Your task to perform on an android device: Empty the shopping cart on newegg. Add "dell alienware" to the cart on newegg Image 0: 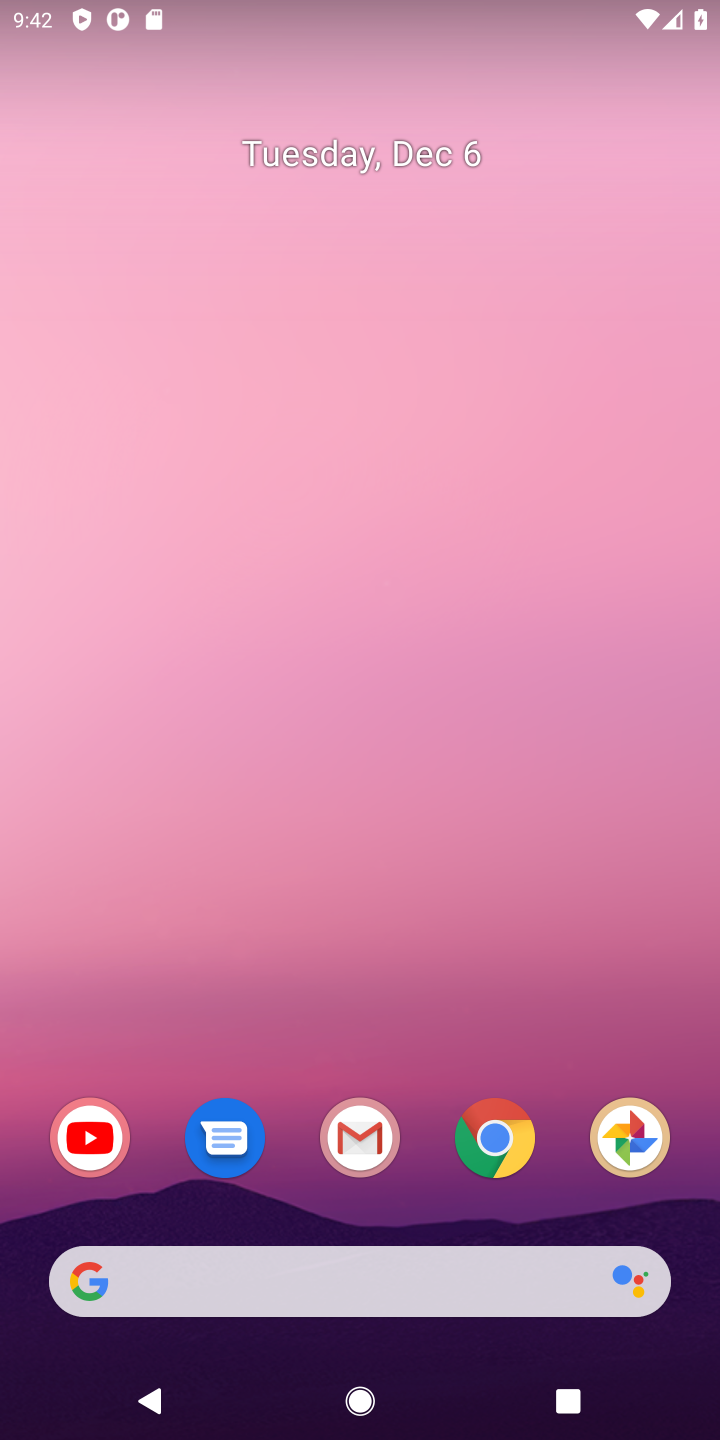
Step 0: click (493, 1133)
Your task to perform on an android device: Empty the shopping cart on newegg. Add "dell alienware" to the cart on newegg Image 1: 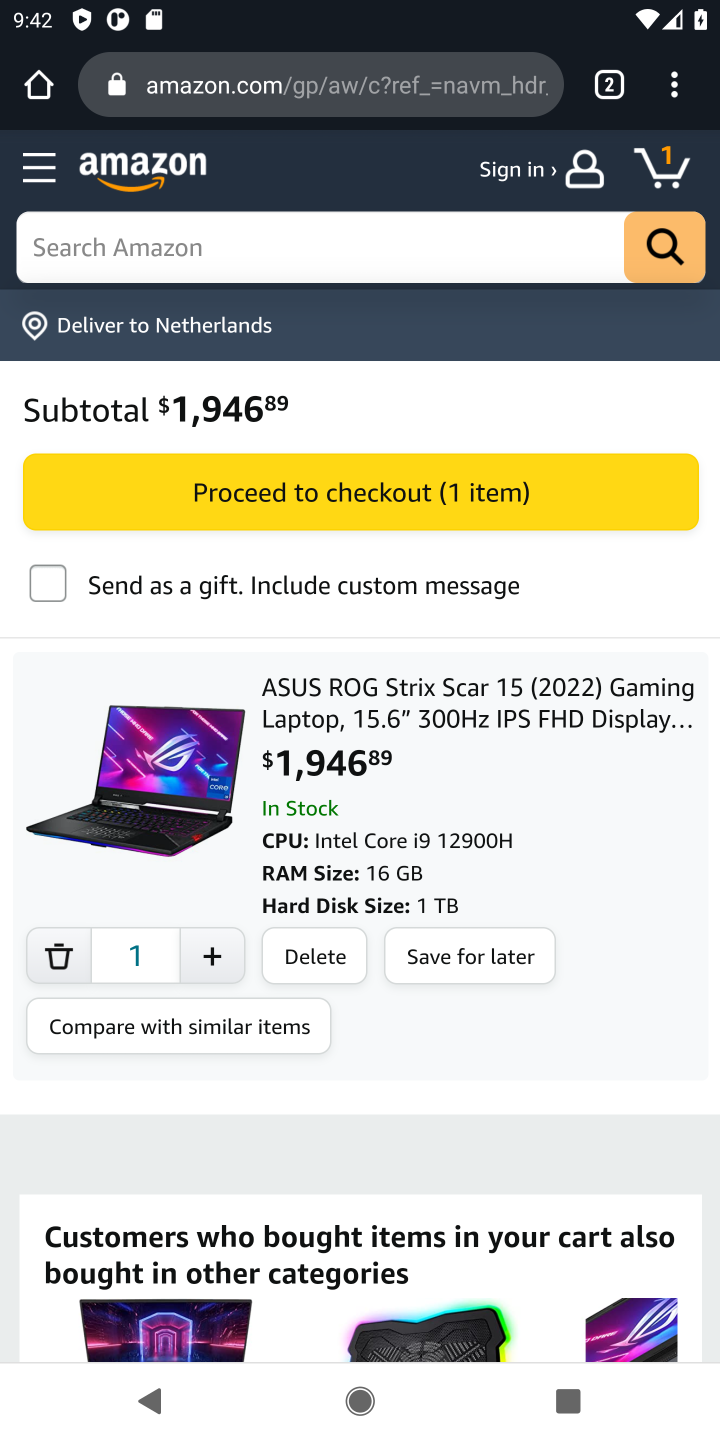
Step 1: click (239, 84)
Your task to perform on an android device: Empty the shopping cart on newegg. Add "dell alienware" to the cart on newegg Image 2: 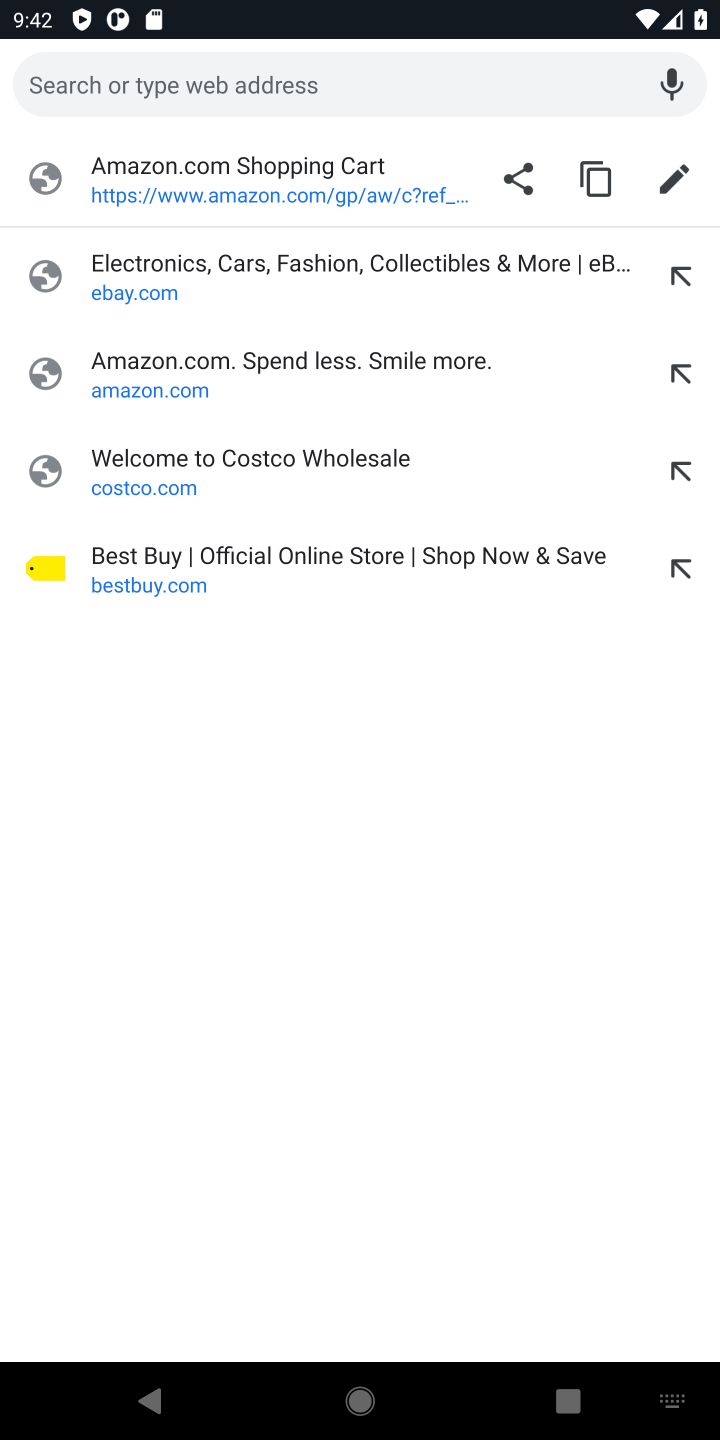
Step 2: type "newegg.com"
Your task to perform on an android device: Empty the shopping cart on newegg. Add "dell alienware" to the cart on newegg Image 3: 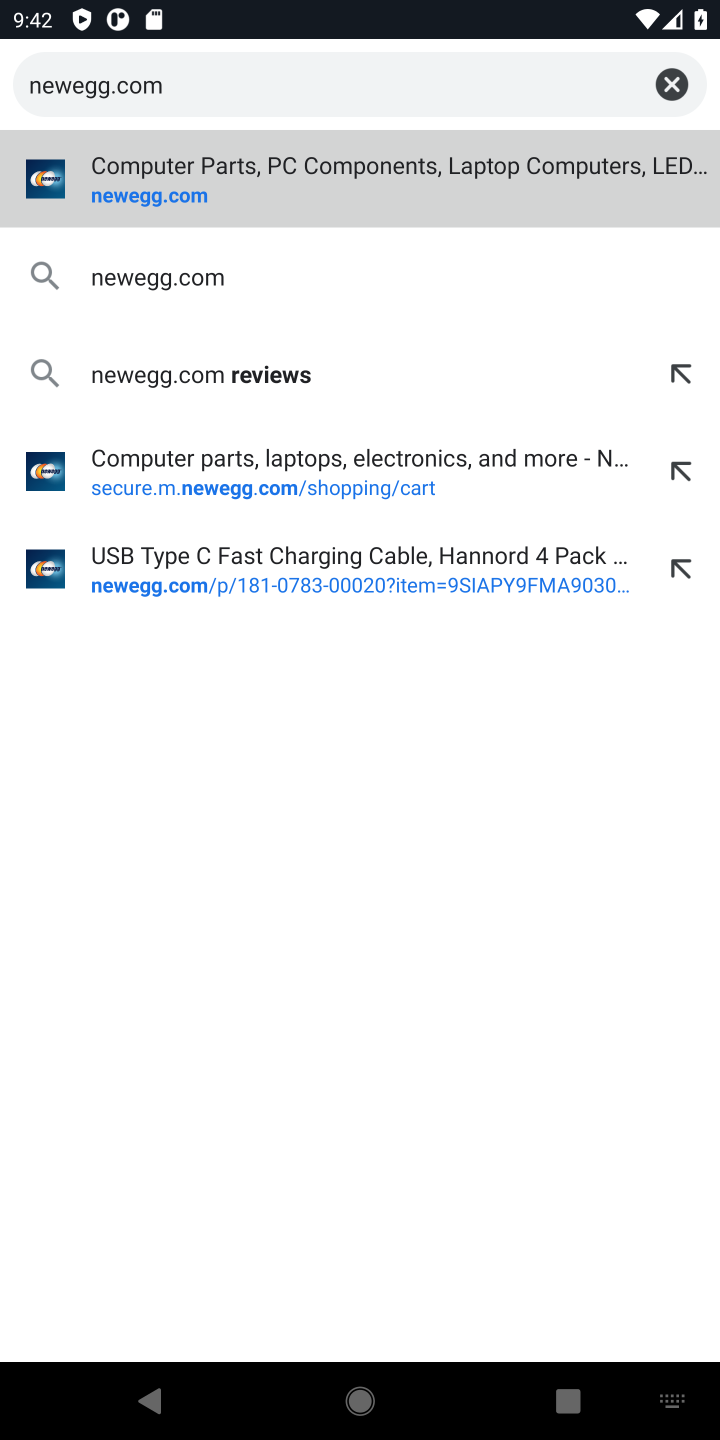
Step 3: click (115, 181)
Your task to perform on an android device: Empty the shopping cart on newegg. Add "dell alienware" to the cart on newegg Image 4: 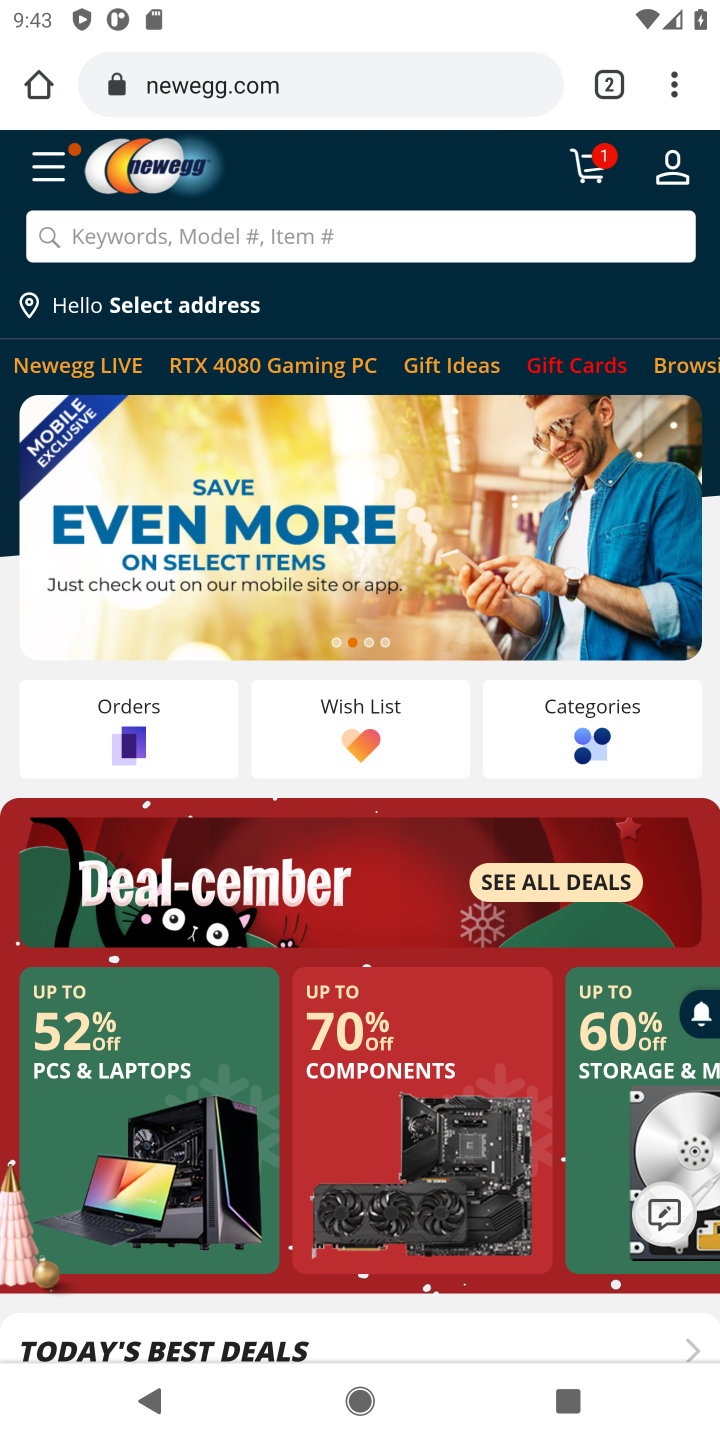
Step 4: click (592, 180)
Your task to perform on an android device: Empty the shopping cart on newegg. Add "dell alienware" to the cart on newegg Image 5: 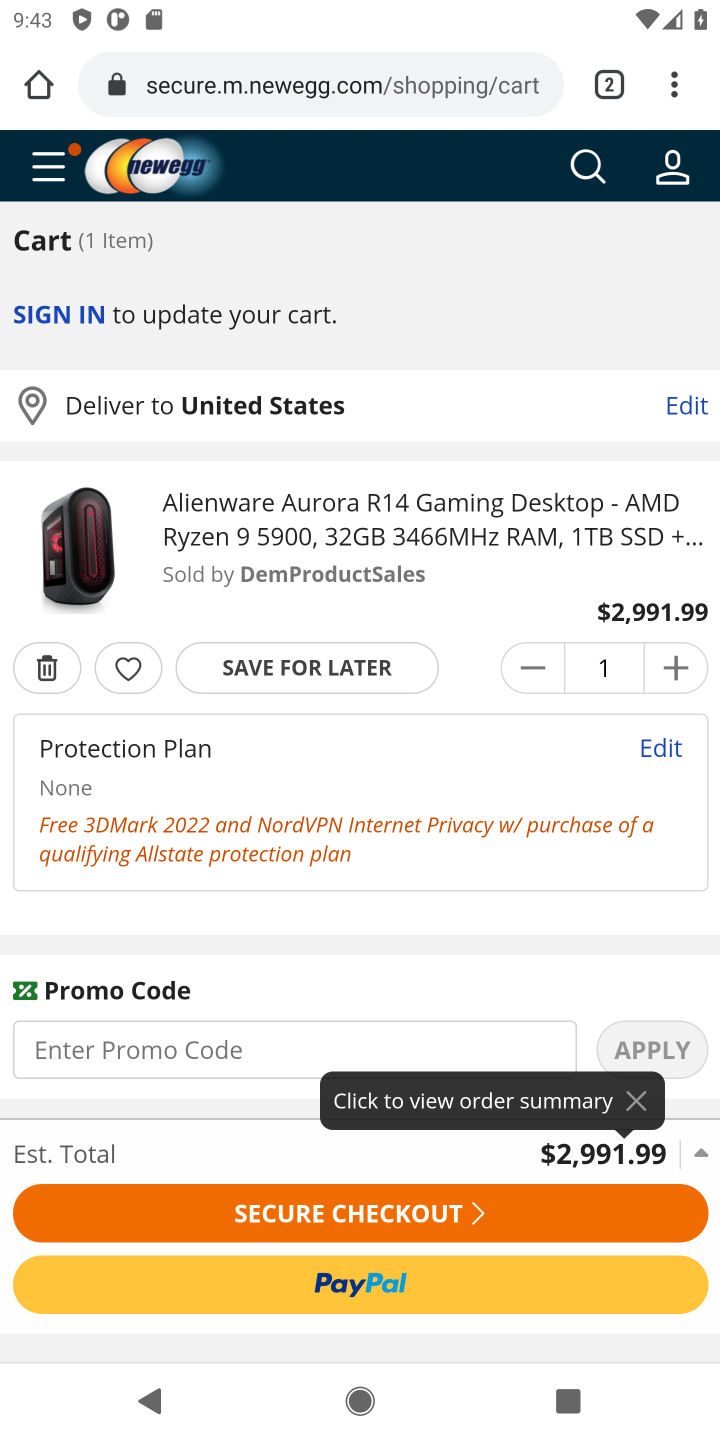
Step 5: click (39, 665)
Your task to perform on an android device: Empty the shopping cart on newegg. Add "dell alienware" to the cart on newegg Image 6: 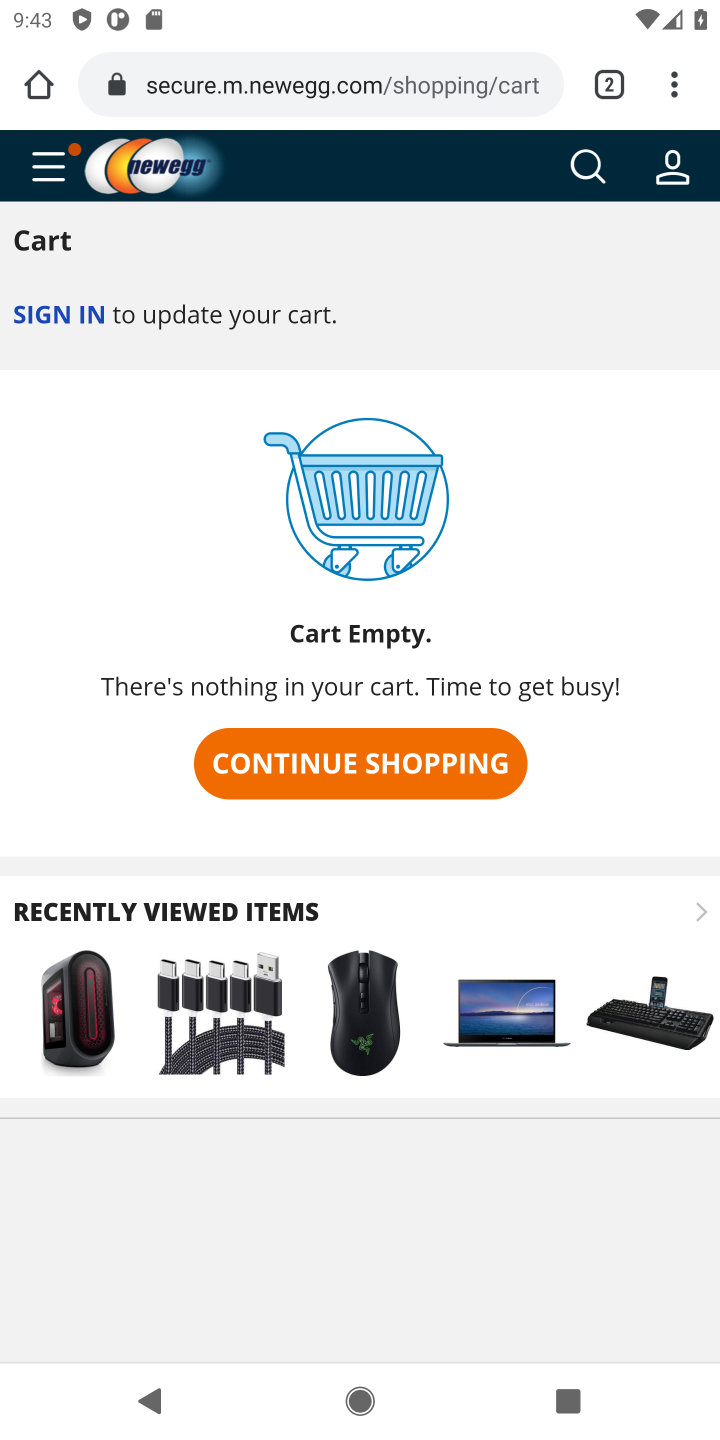
Step 6: click (582, 181)
Your task to perform on an android device: Empty the shopping cart on newegg. Add "dell alienware" to the cart on newegg Image 7: 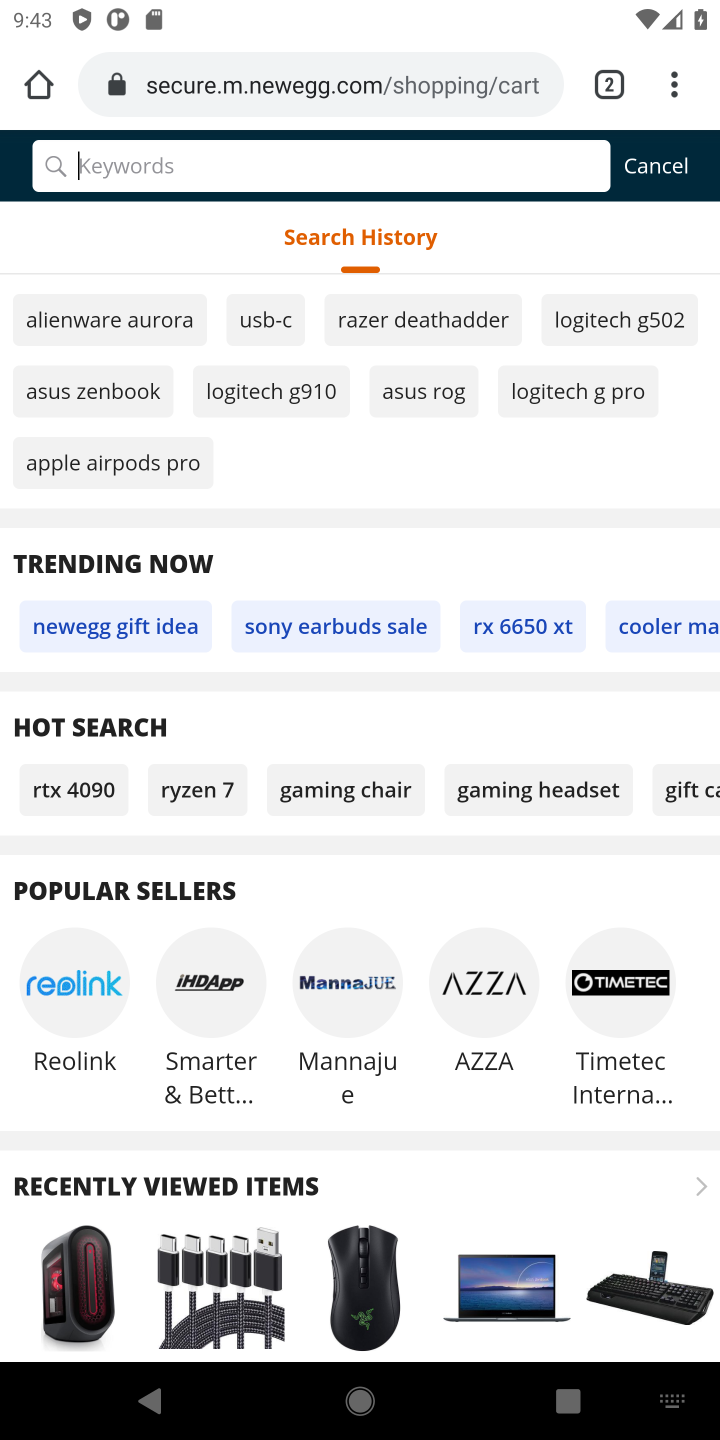
Step 7: type "dell alienware"
Your task to perform on an android device: Empty the shopping cart on newegg. Add "dell alienware" to the cart on newegg Image 8: 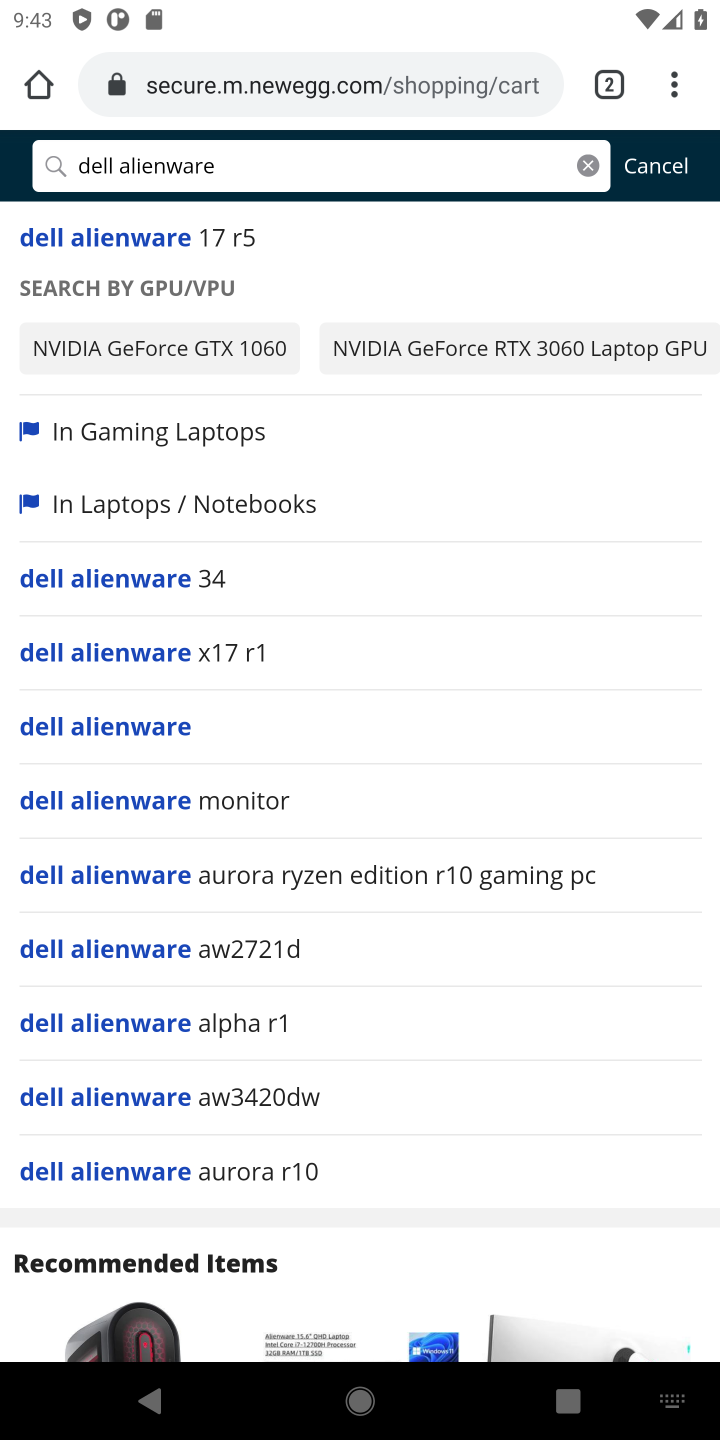
Step 8: click (146, 723)
Your task to perform on an android device: Empty the shopping cart on newegg. Add "dell alienware" to the cart on newegg Image 9: 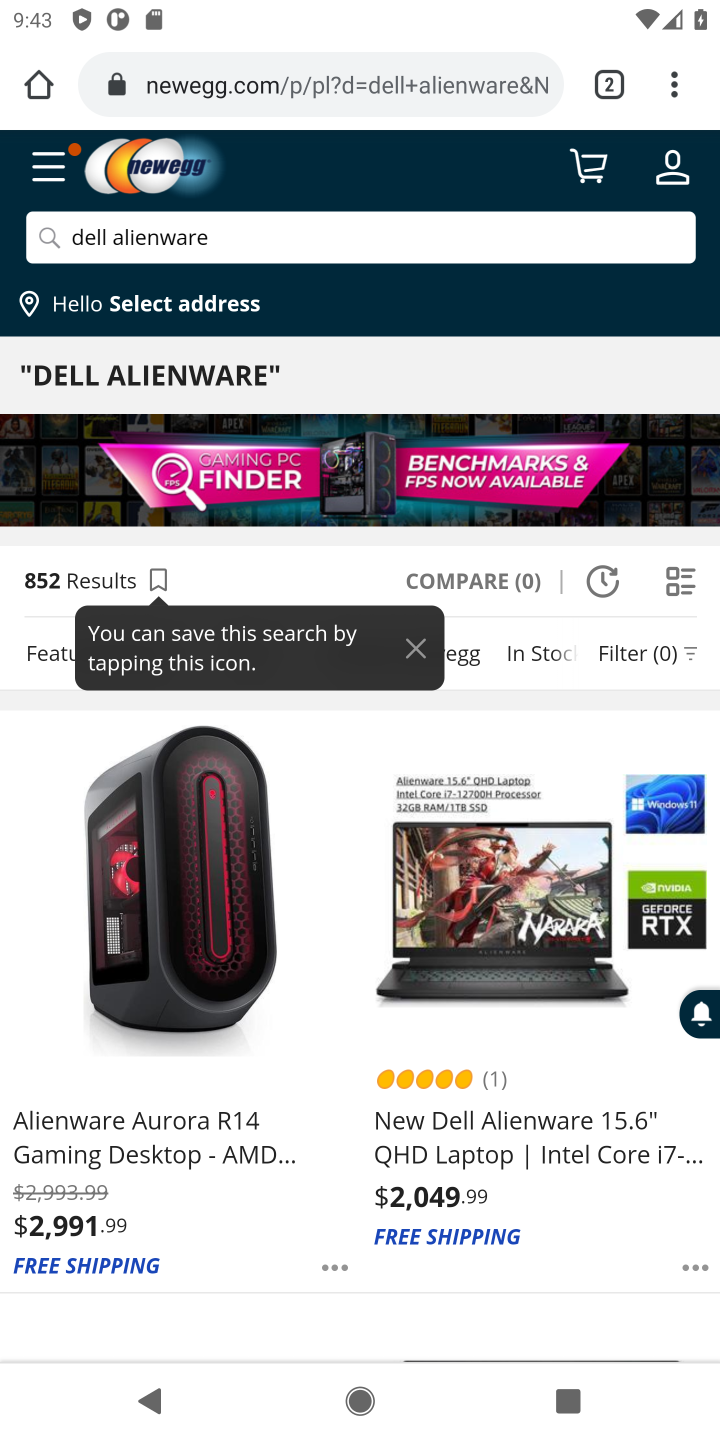
Step 9: click (516, 1123)
Your task to perform on an android device: Empty the shopping cart on newegg. Add "dell alienware" to the cart on newegg Image 10: 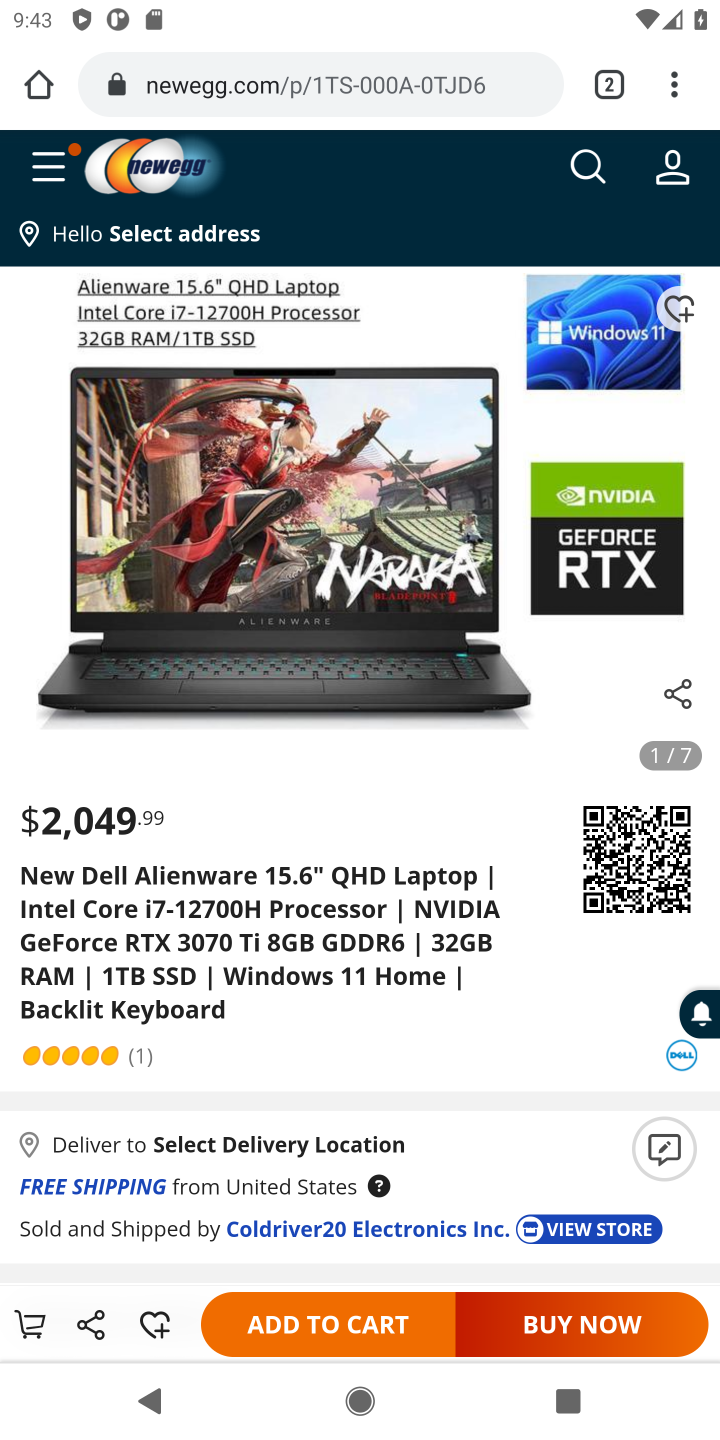
Step 10: click (293, 1337)
Your task to perform on an android device: Empty the shopping cart on newegg. Add "dell alienware" to the cart on newegg Image 11: 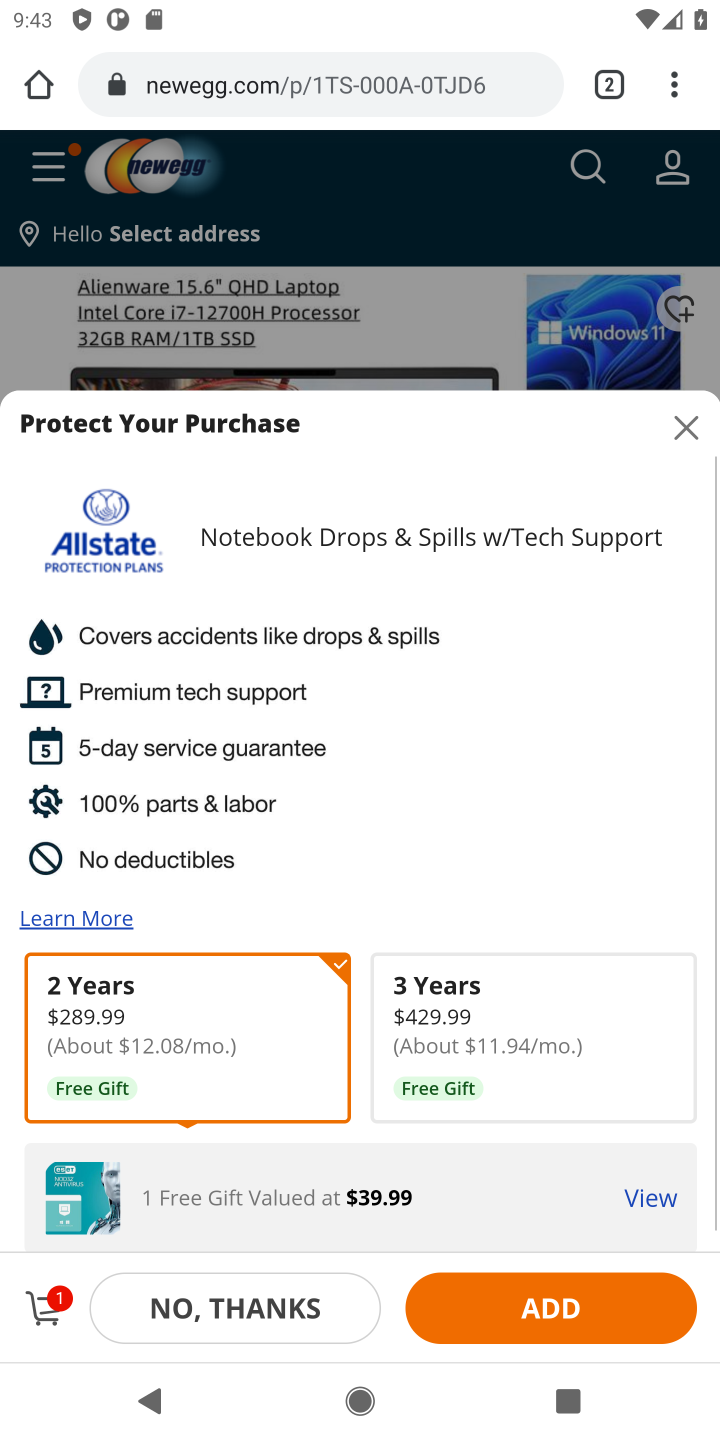
Step 11: task complete